Your task to perform on an android device: open a new tab in the chrome app Image 0: 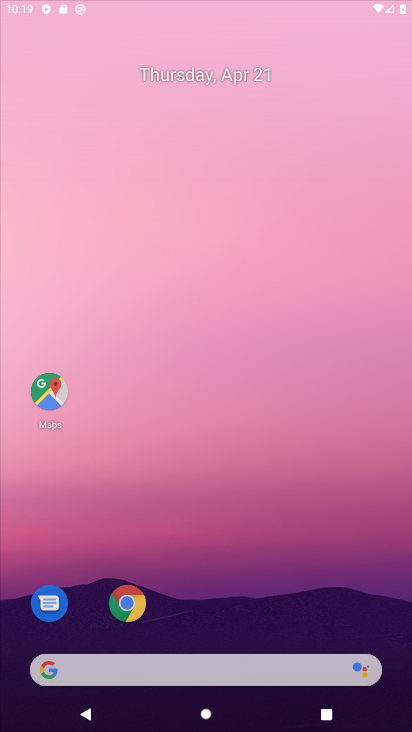
Step 0: click (215, 226)
Your task to perform on an android device: open a new tab in the chrome app Image 1: 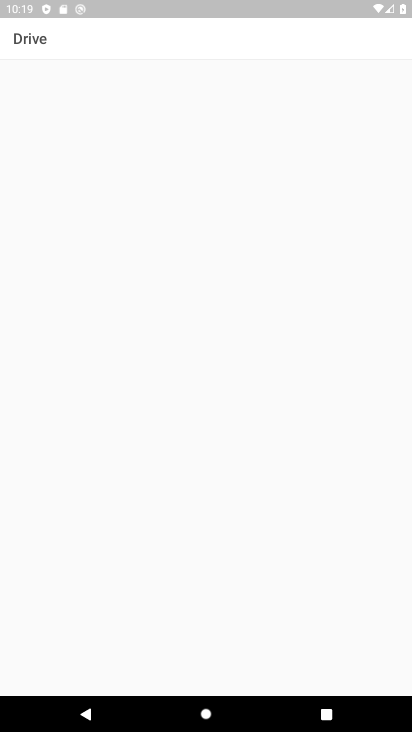
Step 1: press home button
Your task to perform on an android device: open a new tab in the chrome app Image 2: 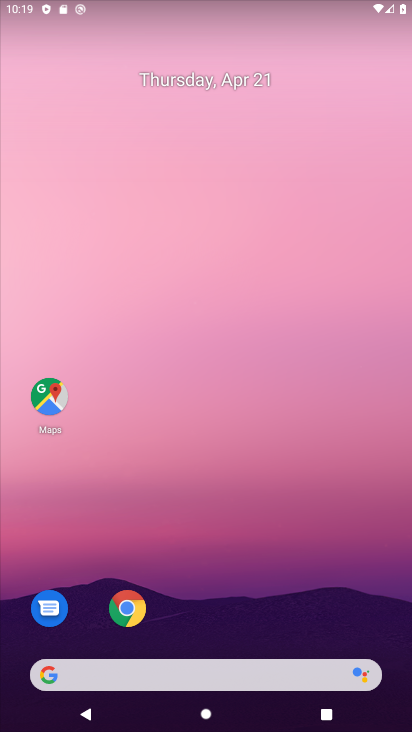
Step 2: click (133, 610)
Your task to perform on an android device: open a new tab in the chrome app Image 3: 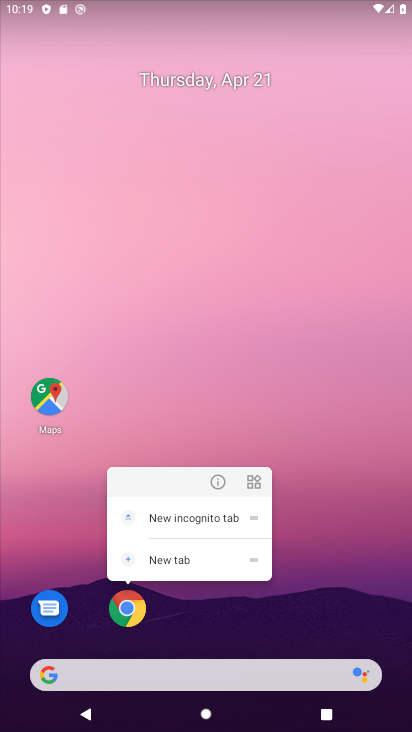
Step 3: click (133, 610)
Your task to perform on an android device: open a new tab in the chrome app Image 4: 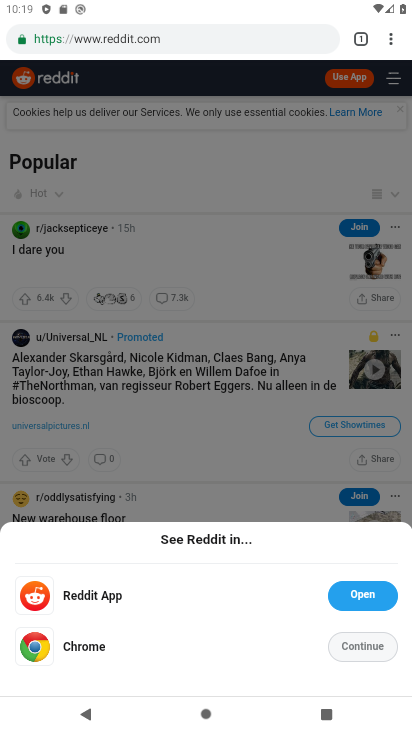
Step 4: click (361, 36)
Your task to perform on an android device: open a new tab in the chrome app Image 5: 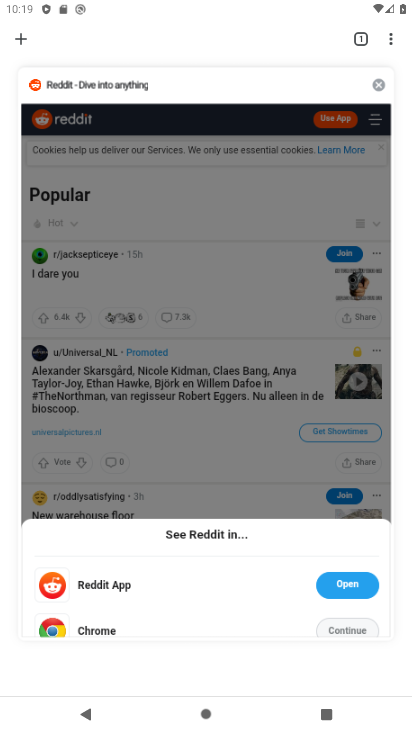
Step 5: click (19, 39)
Your task to perform on an android device: open a new tab in the chrome app Image 6: 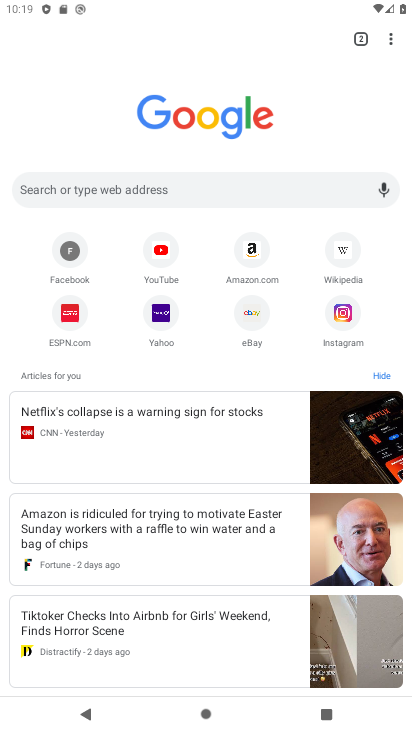
Step 6: task complete